Your task to perform on an android device: turn off sleep mode Image 0: 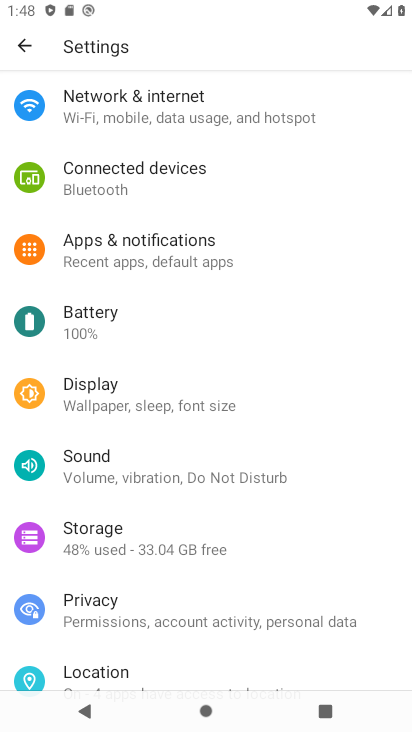
Step 0: click (165, 403)
Your task to perform on an android device: turn off sleep mode Image 1: 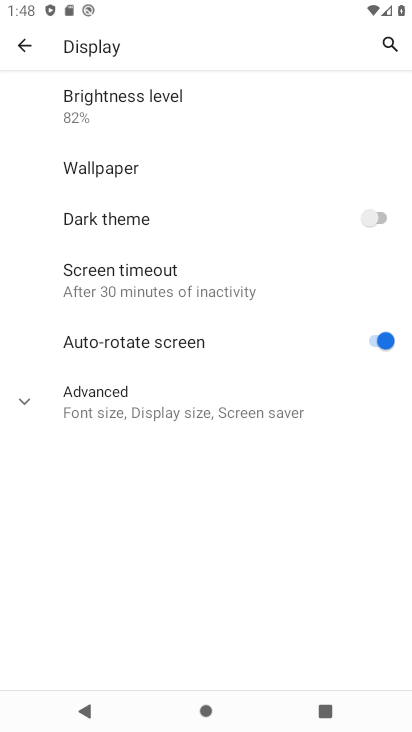
Step 1: click (108, 389)
Your task to perform on an android device: turn off sleep mode Image 2: 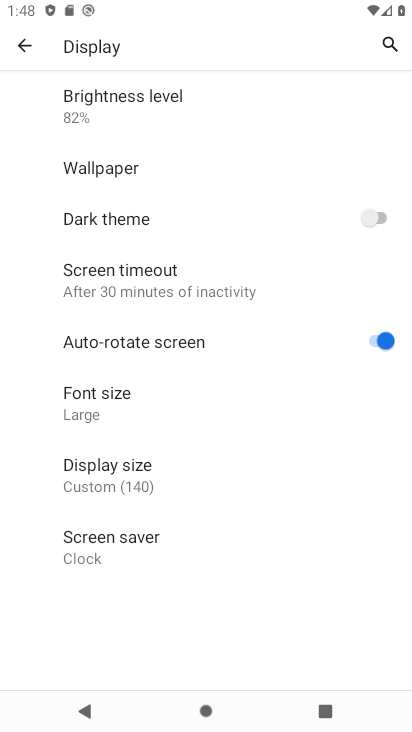
Step 2: task complete